Your task to perform on an android device: add a label to a message in the gmail app Image 0: 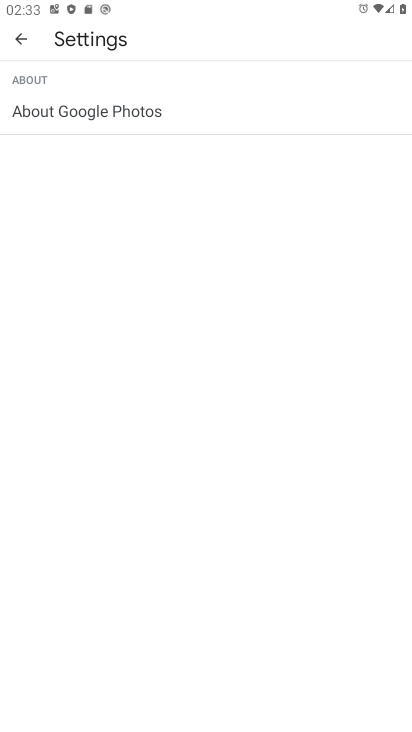
Step 0: press home button
Your task to perform on an android device: add a label to a message in the gmail app Image 1: 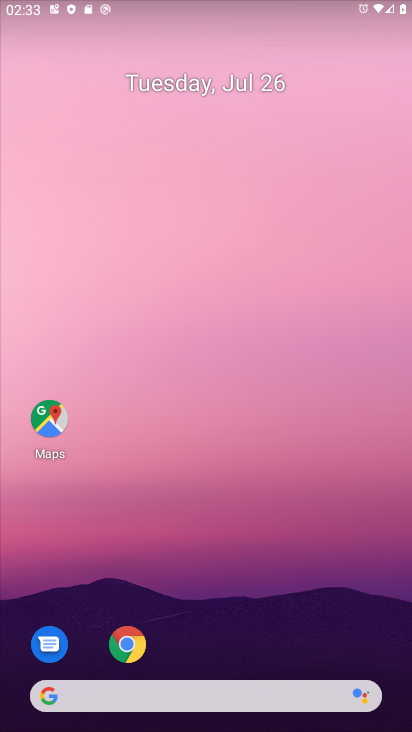
Step 1: drag from (212, 548) to (257, 149)
Your task to perform on an android device: add a label to a message in the gmail app Image 2: 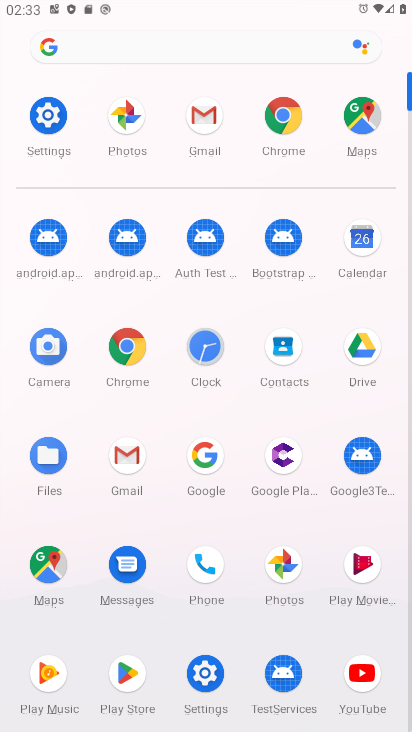
Step 2: click (134, 448)
Your task to perform on an android device: add a label to a message in the gmail app Image 3: 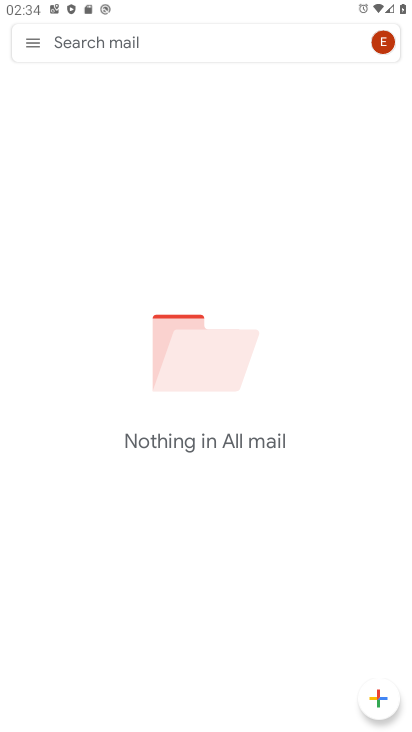
Step 3: task complete